Your task to perform on an android device: Show the shopping cart on bestbuy.com. Search for "razer deathadder" on bestbuy.com, select the first entry, and add it to the cart. Image 0: 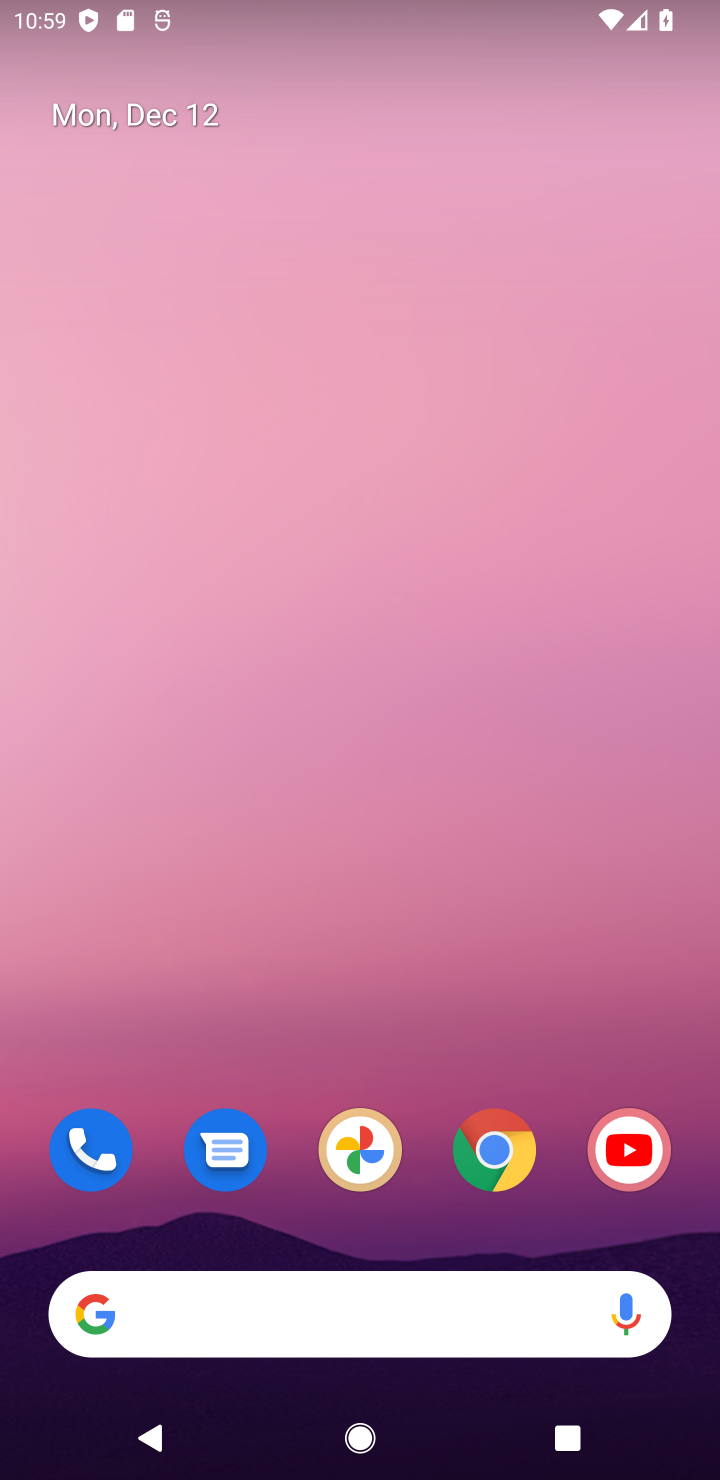
Step 0: click (489, 1150)
Your task to perform on an android device: Show the shopping cart on bestbuy.com. Search for "razer deathadder" on bestbuy.com, select the first entry, and add it to the cart. Image 1: 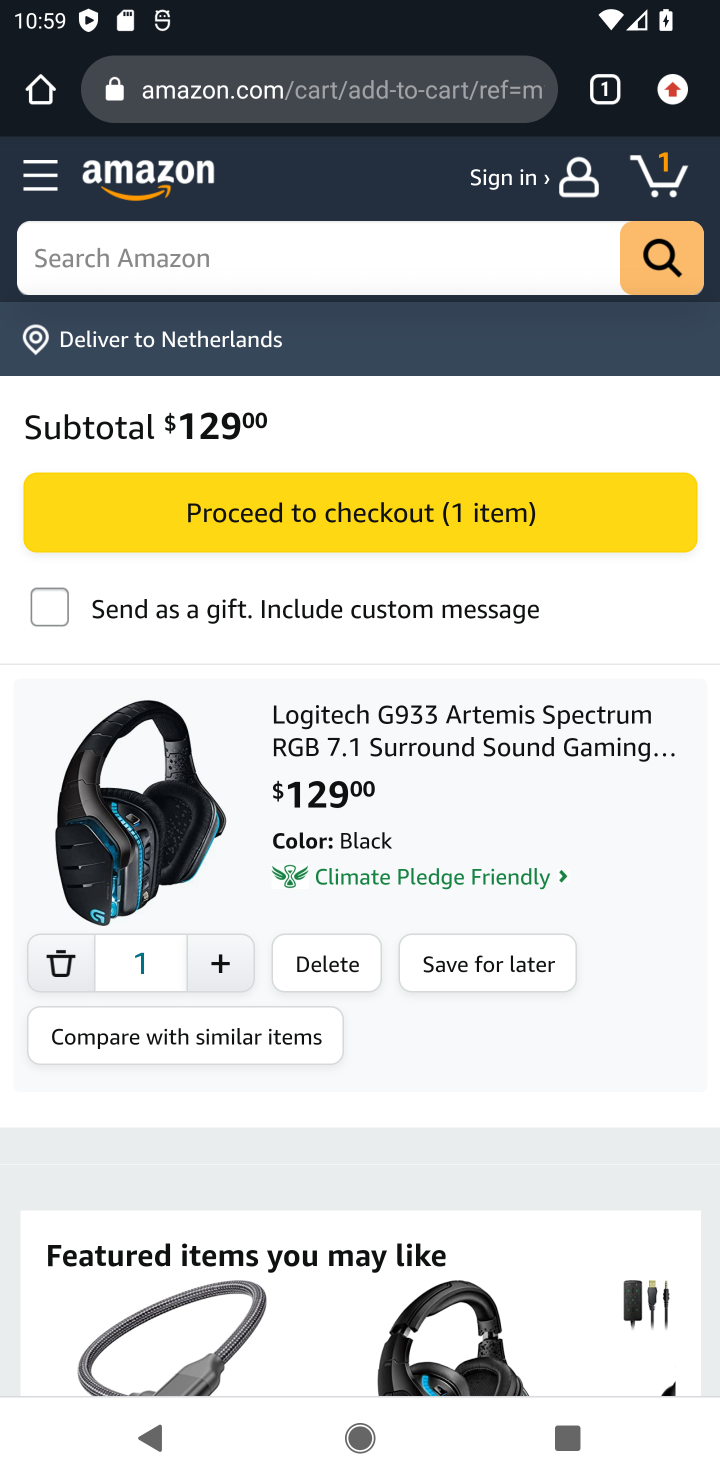
Step 1: click (271, 104)
Your task to perform on an android device: Show the shopping cart on bestbuy.com. Search for "razer deathadder" on bestbuy.com, select the first entry, and add it to the cart. Image 2: 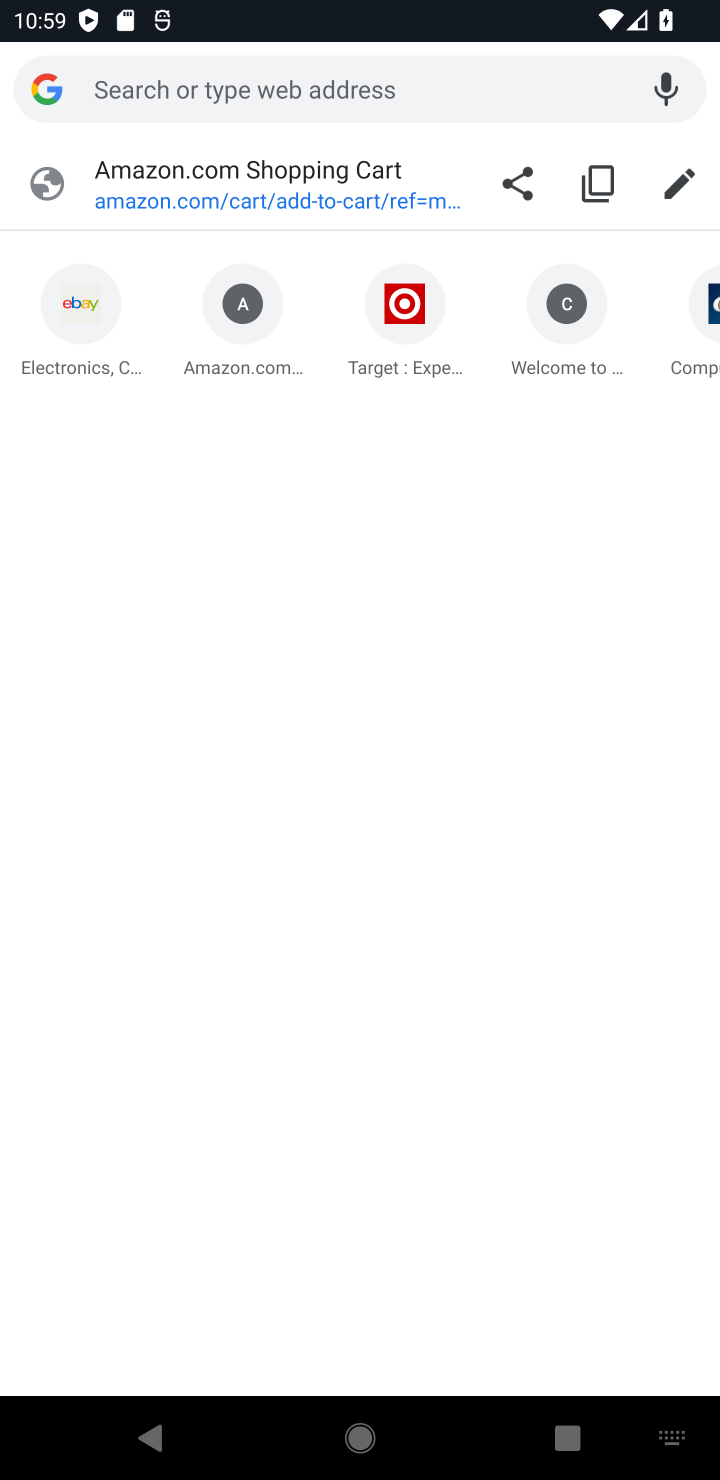
Step 2: type "bestbuy.com"
Your task to perform on an android device: Show the shopping cart on bestbuy.com. Search for "razer deathadder" on bestbuy.com, select the first entry, and add it to the cart. Image 3: 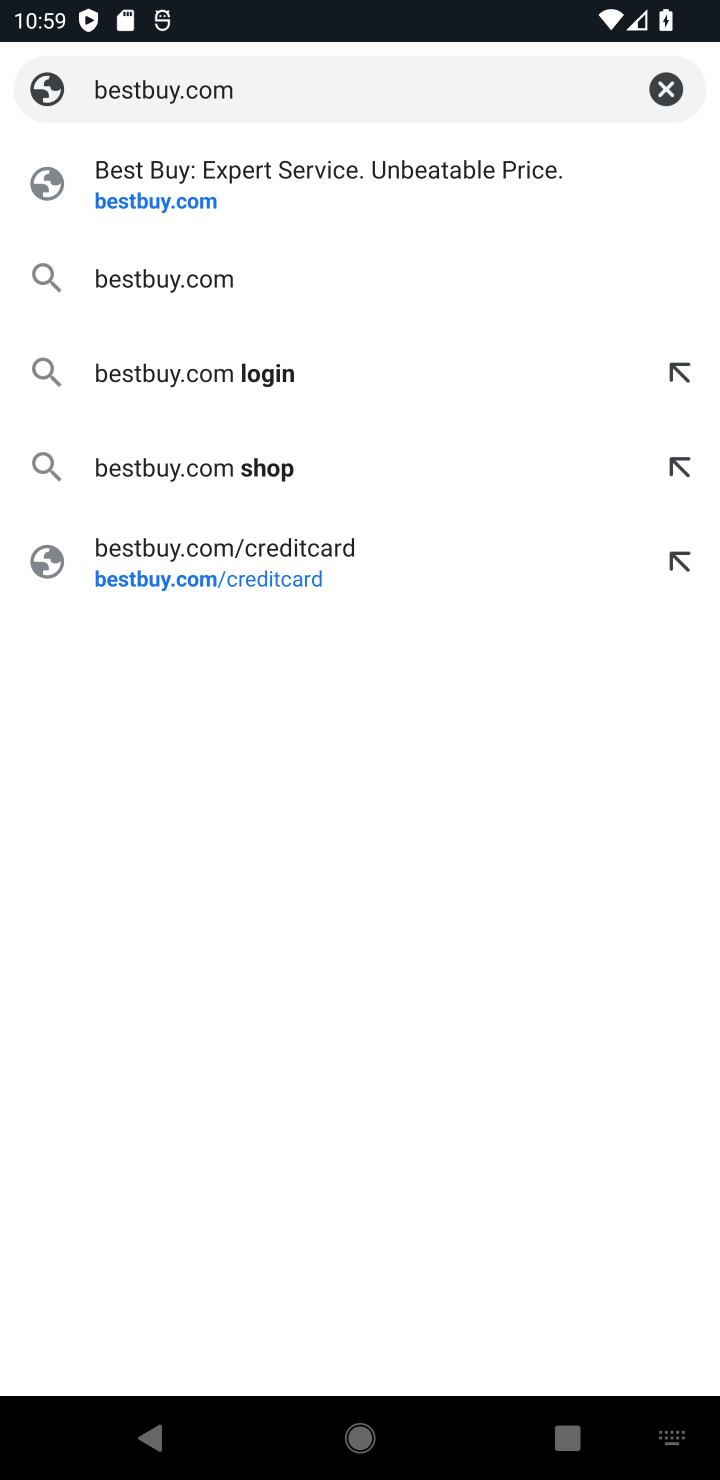
Step 3: click (173, 215)
Your task to perform on an android device: Show the shopping cart on bestbuy.com. Search for "razer deathadder" on bestbuy.com, select the first entry, and add it to the cart. Image 4: 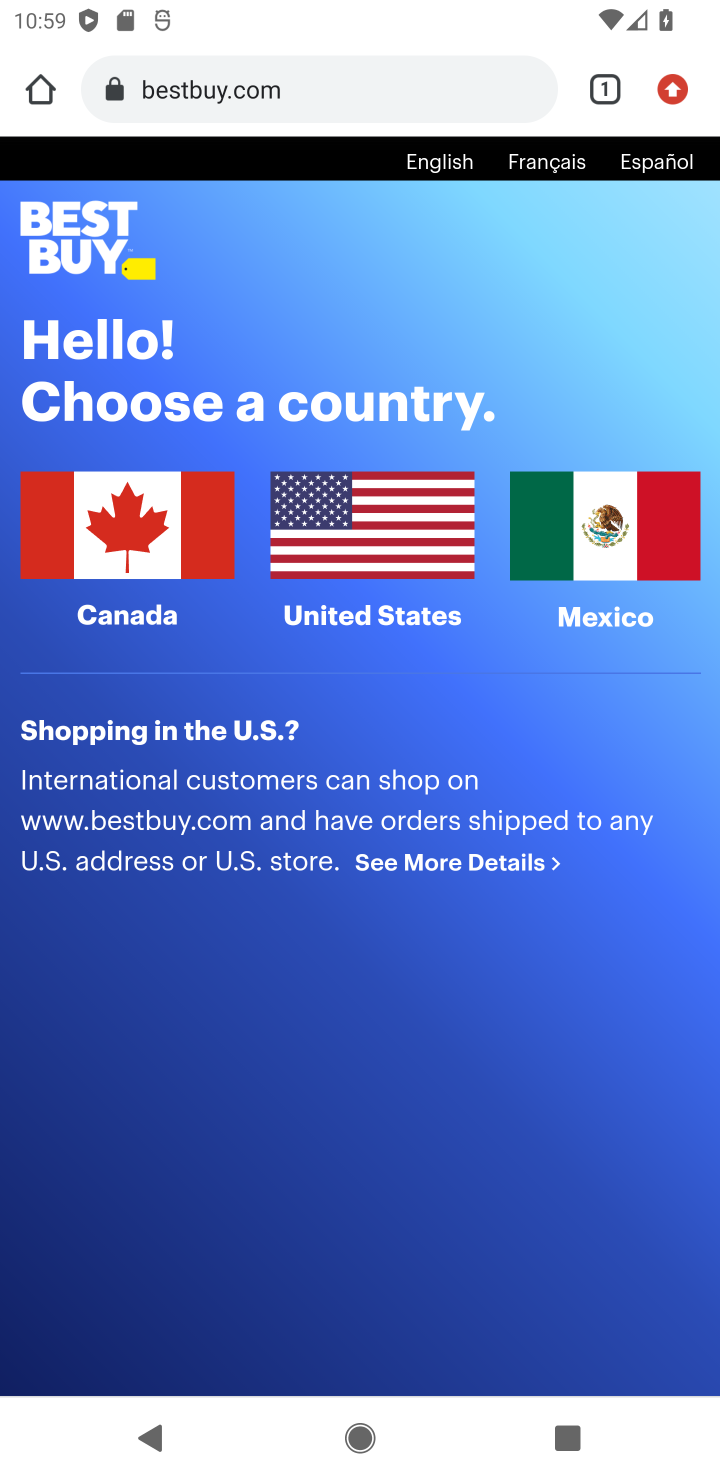
Step 4: click (382, 554)
Your task to perform on an android device: Show the shopping cart on bestbuy.com. Search for "razer deathadder" on bestbuy.com, select the first entry, and add it to the cart. Image 5: 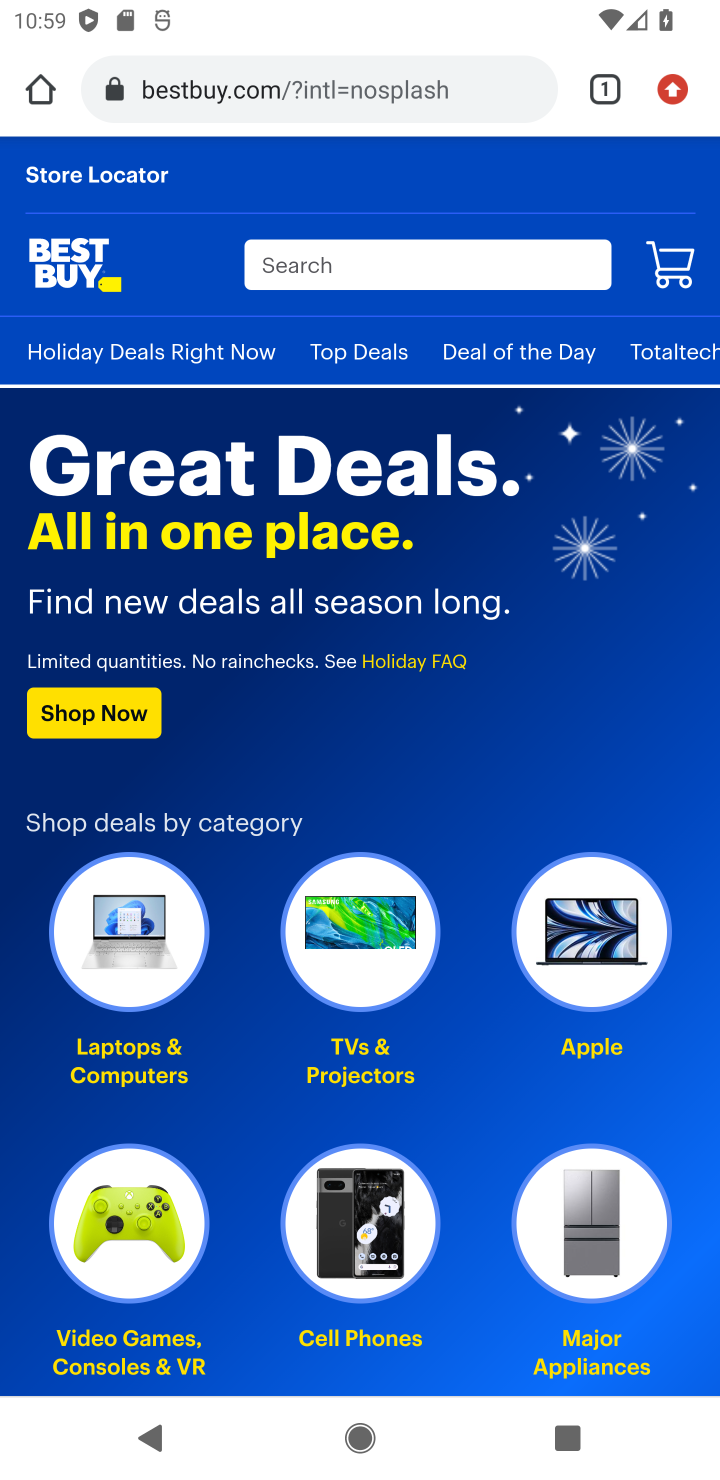
Step 5: click (667, 275)
Your task to perform on an android device: Show the shopping cart on bestbuy.com. Search for "razer deathadder" on bestbuy.com, select the first entry, and add it to the cart. Image 6: 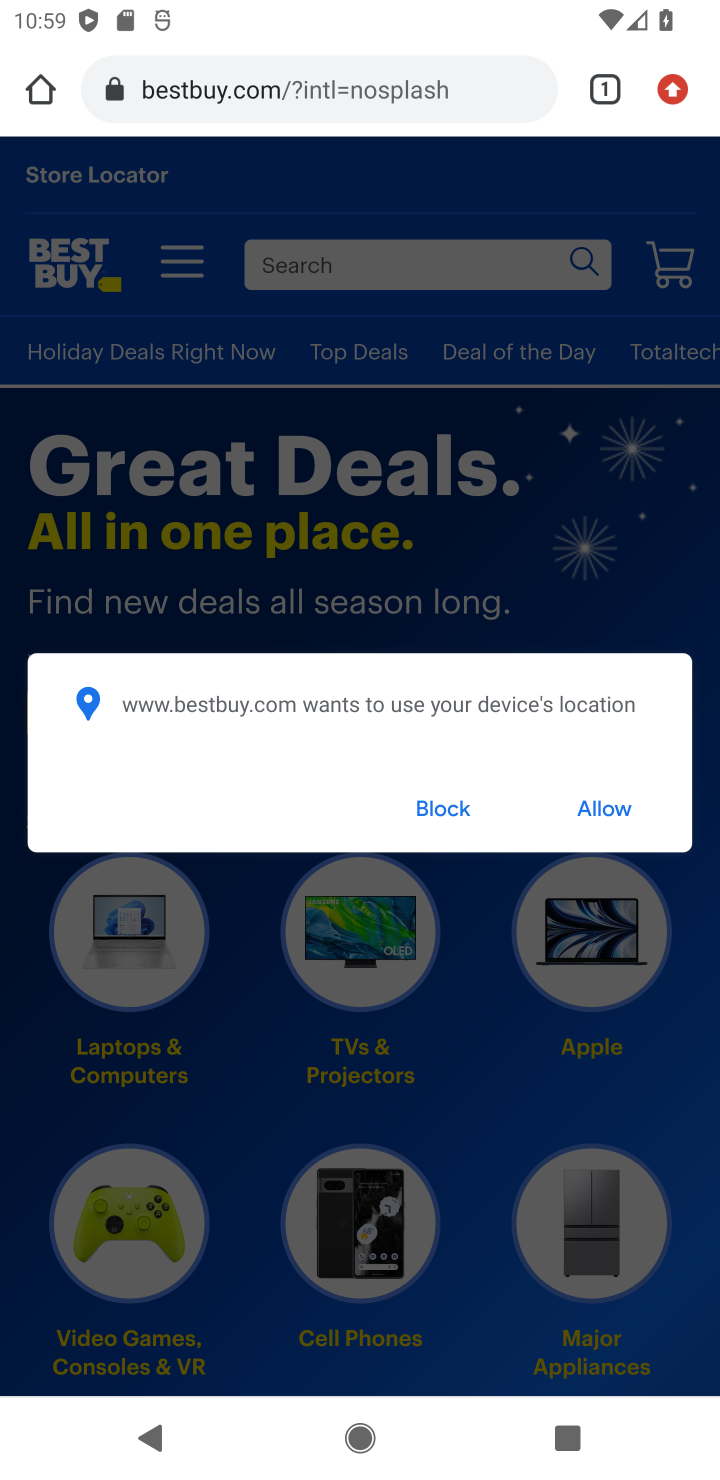
Step 6: click (418, 808)
Your task to perform on an android device: Show the shopping cart on bestbuy.com. Search for "razer deathadder" on bestbuy.com, select the first entry, and add it to the cart. Image 7: 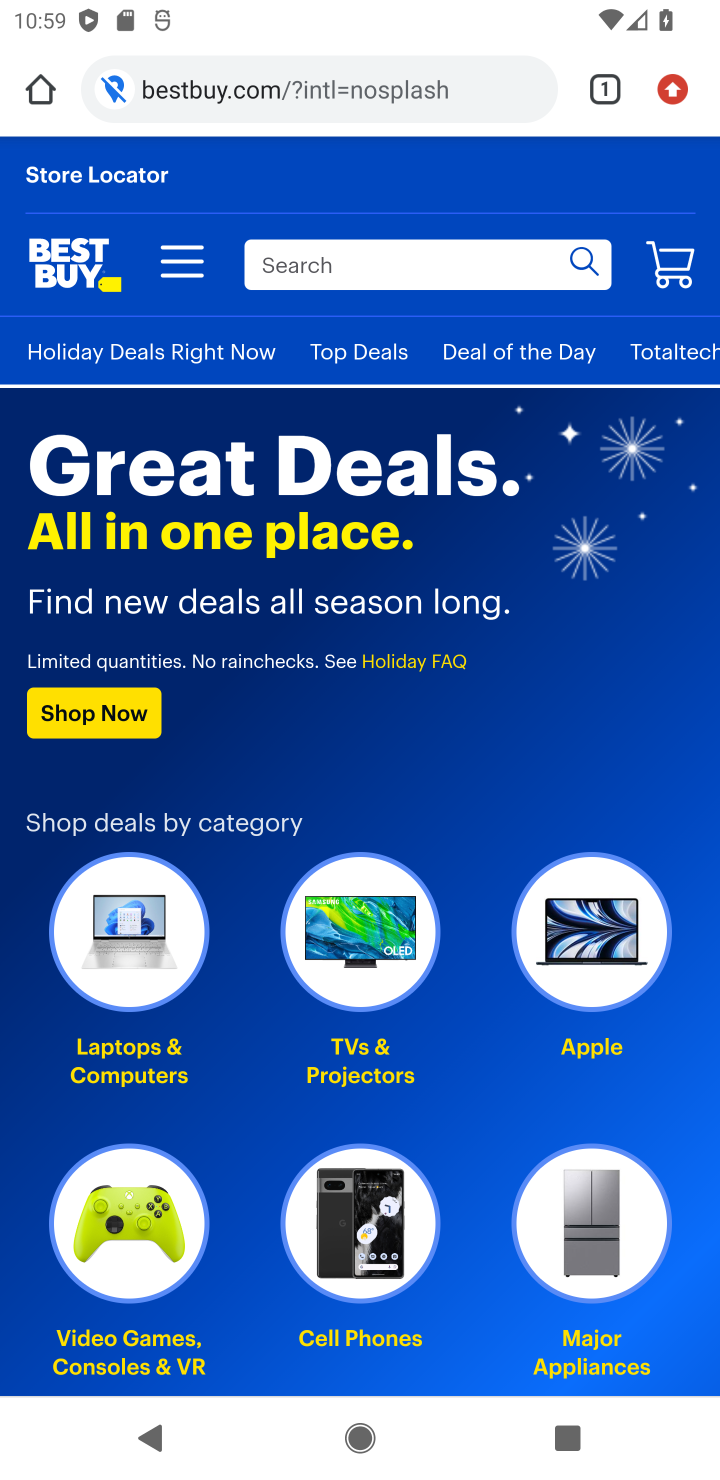
Step 7: click (677, 279)
Your task to perform on an android device: Show the shopping cart on bestbuy.com. Search for "razer deathadder" on bestbuy.com, select the first entry, and add it to the cart. Image 8: 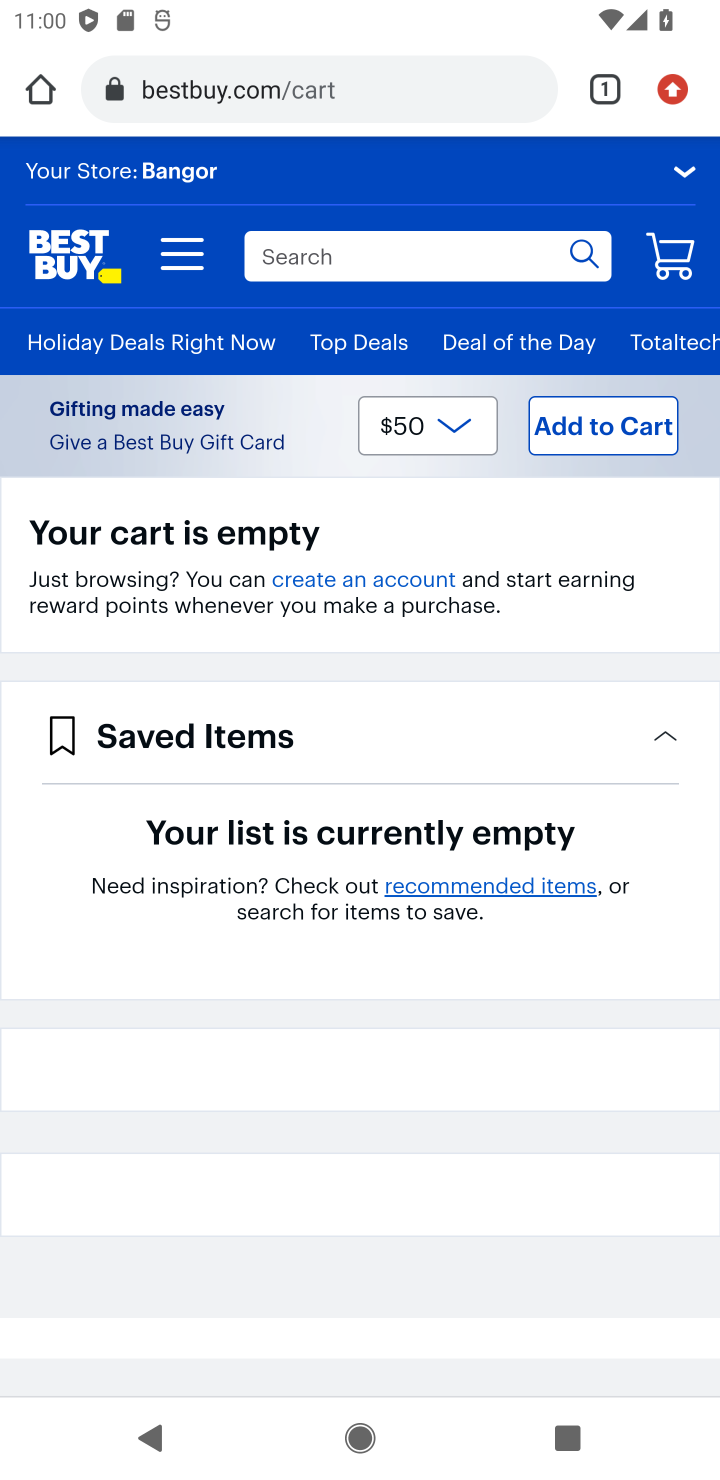
Step 8: click (319, 259)
Your task to perform on an android device: Show the shopping cart on bestbuy.com. Search for "razer deathadder" on bestbuy.com, select the first entry, and add it to the cart. Image 9: 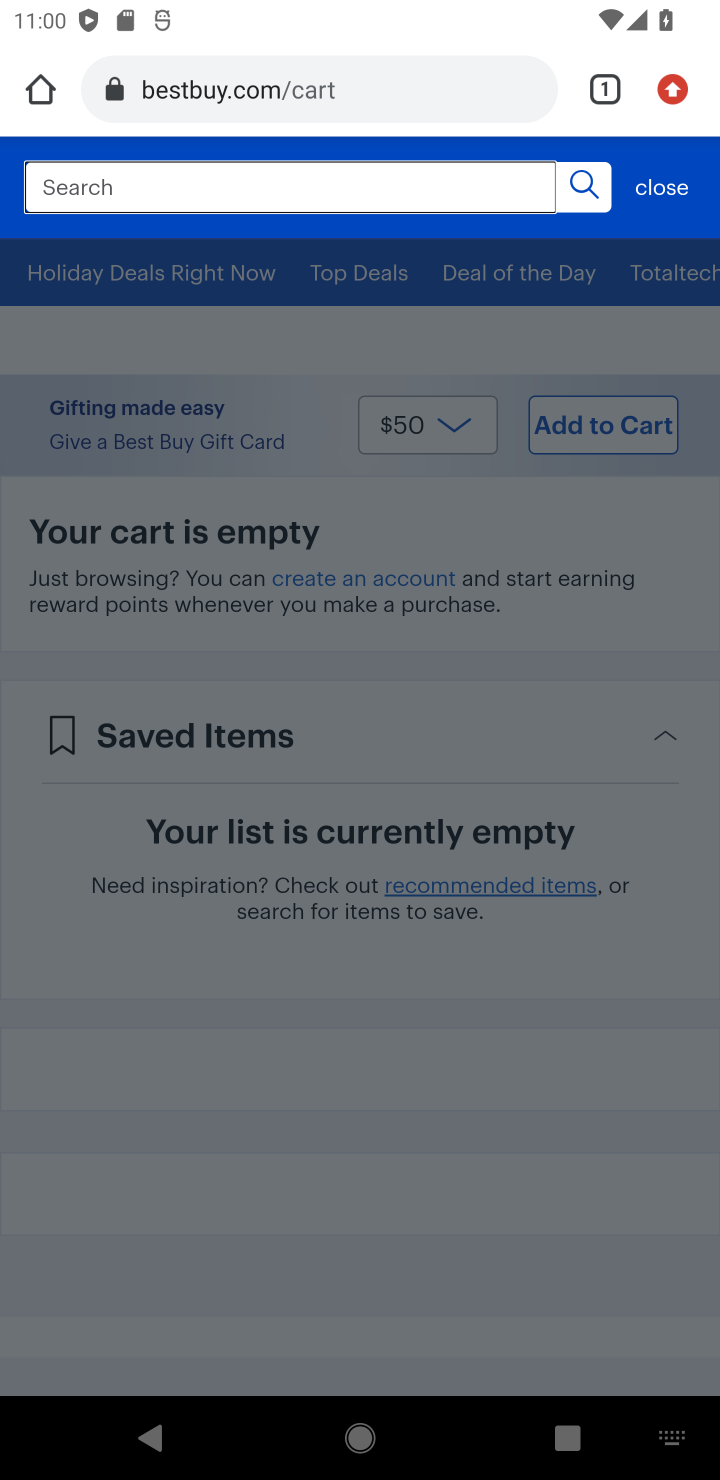
Step 9: type "razer deathadder"
Your task to perform on an android device: Show the shopping cart on bestbuy.com. Search for "razer deathadder" on bestbuy.com, select the first entry, and add it to the cart. Image 10: 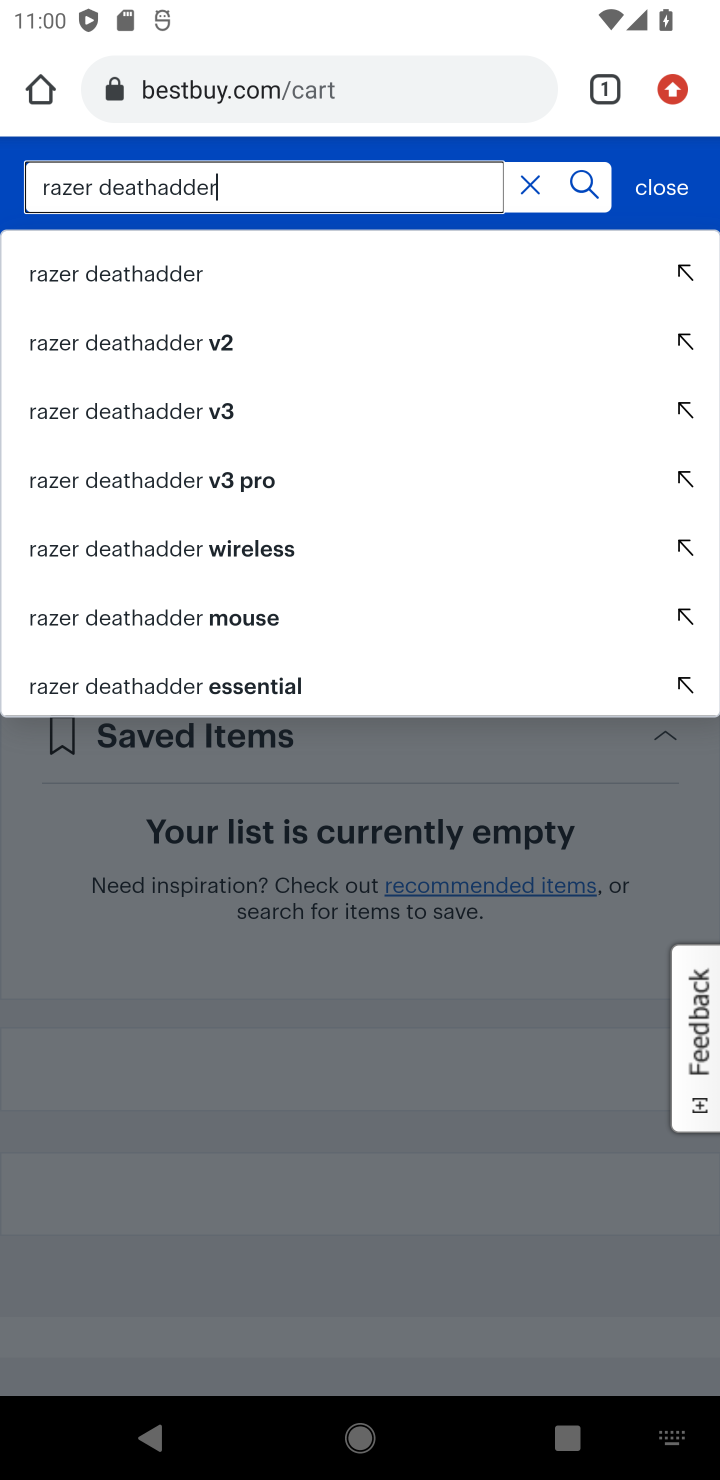
Step 10: click (124, 286)
Your task to perform on an android device: Show the shopping cart on bestbuy.com. Search for "razer deathadder" on bestbuy.com, select the first entry, and add it to the cart. Image 11: 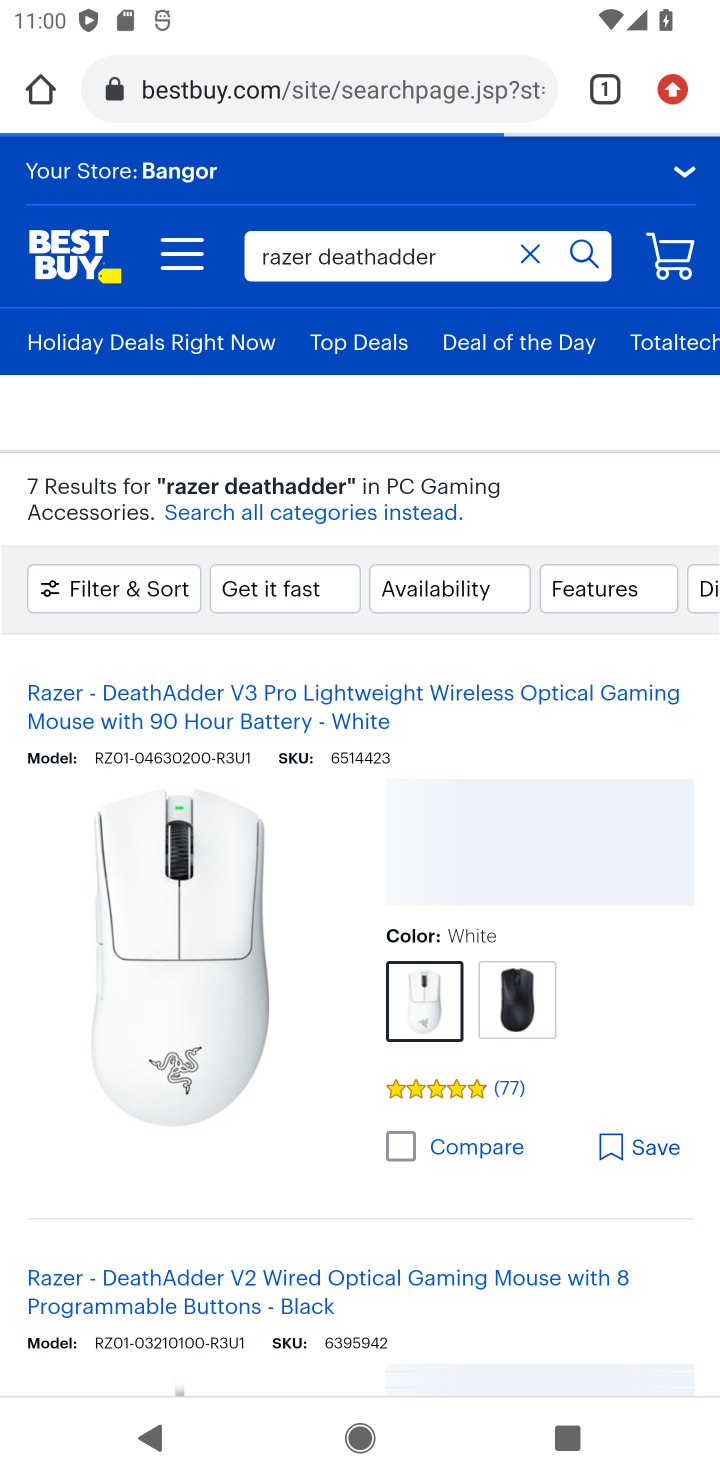
Step 11: drag from (222, 1017) to (243, 637)
Your task to perform on an android device: Show the shopping cart on bestbuy.com. Search for "razer deathadder" on bestbuy.com, select the first entry, and add it to the cart. Image 12: 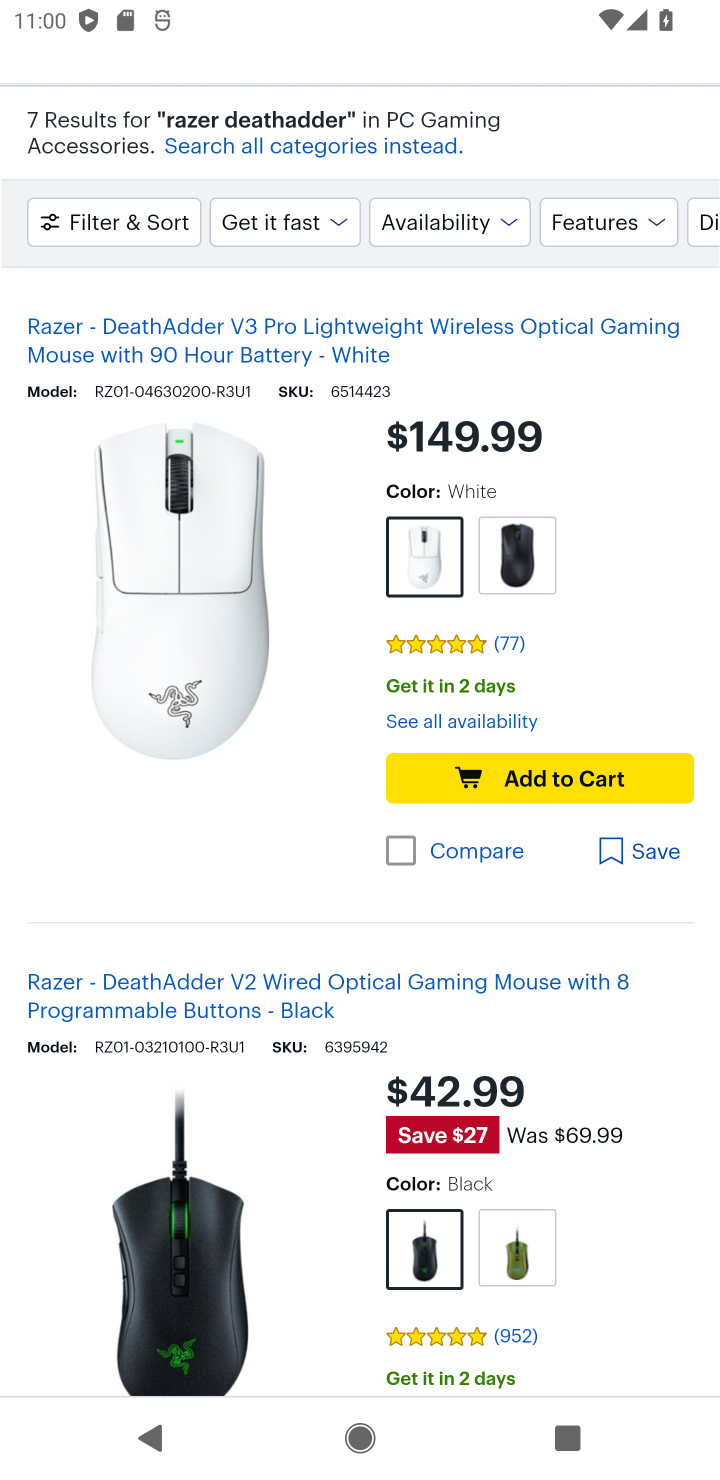
Step 12: click (149, 614)
Your task to perform on an android device: Show the shopping cart on bestbuy.com. Search for "razer deathadder" on bestbuy.com, select the first entry, and add it to the cart. Image 13: 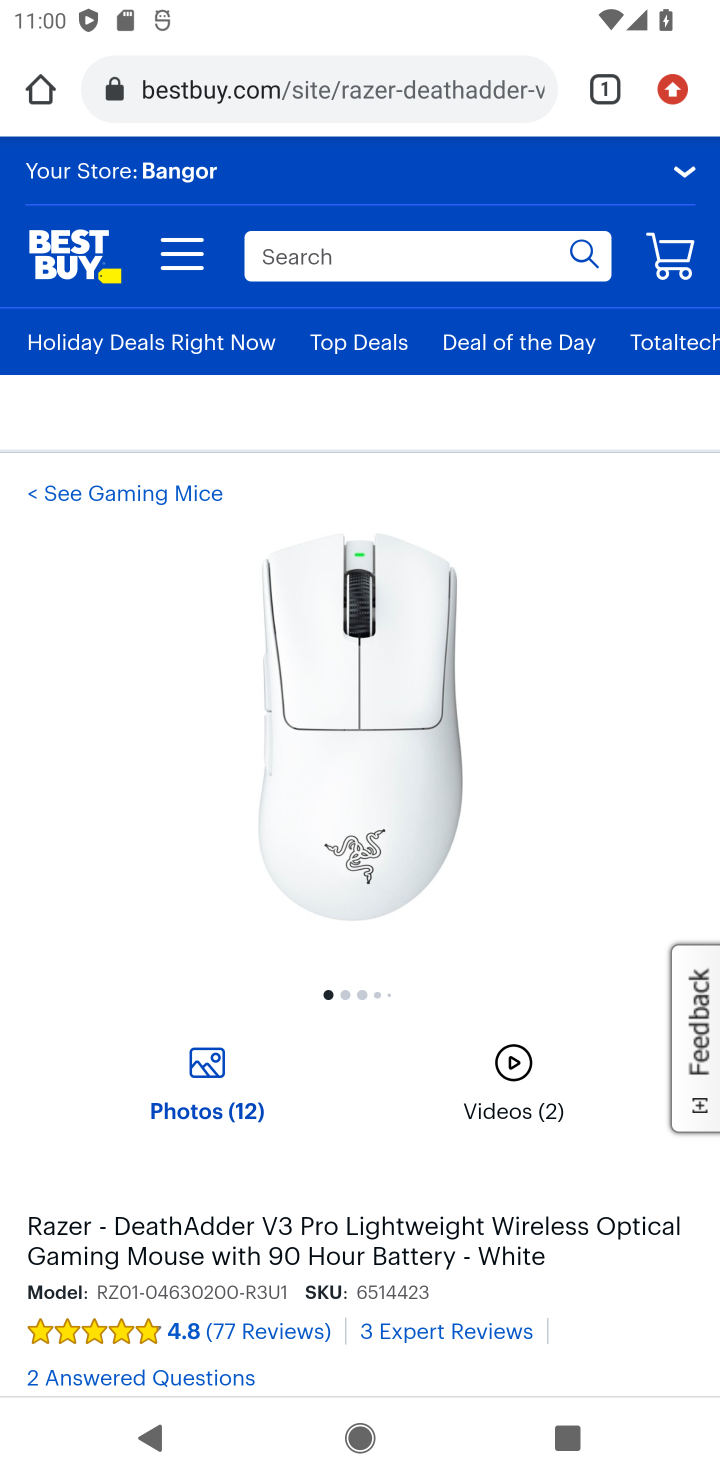
Step 13: drag from (620, 1137) to (582, 538)
Your task to perform on an android device: Show the shopping cart on bestbuy.com. Search for "razer deathadder" on bestbuy.com, select the first entry, and add it to the cart. Image 14: 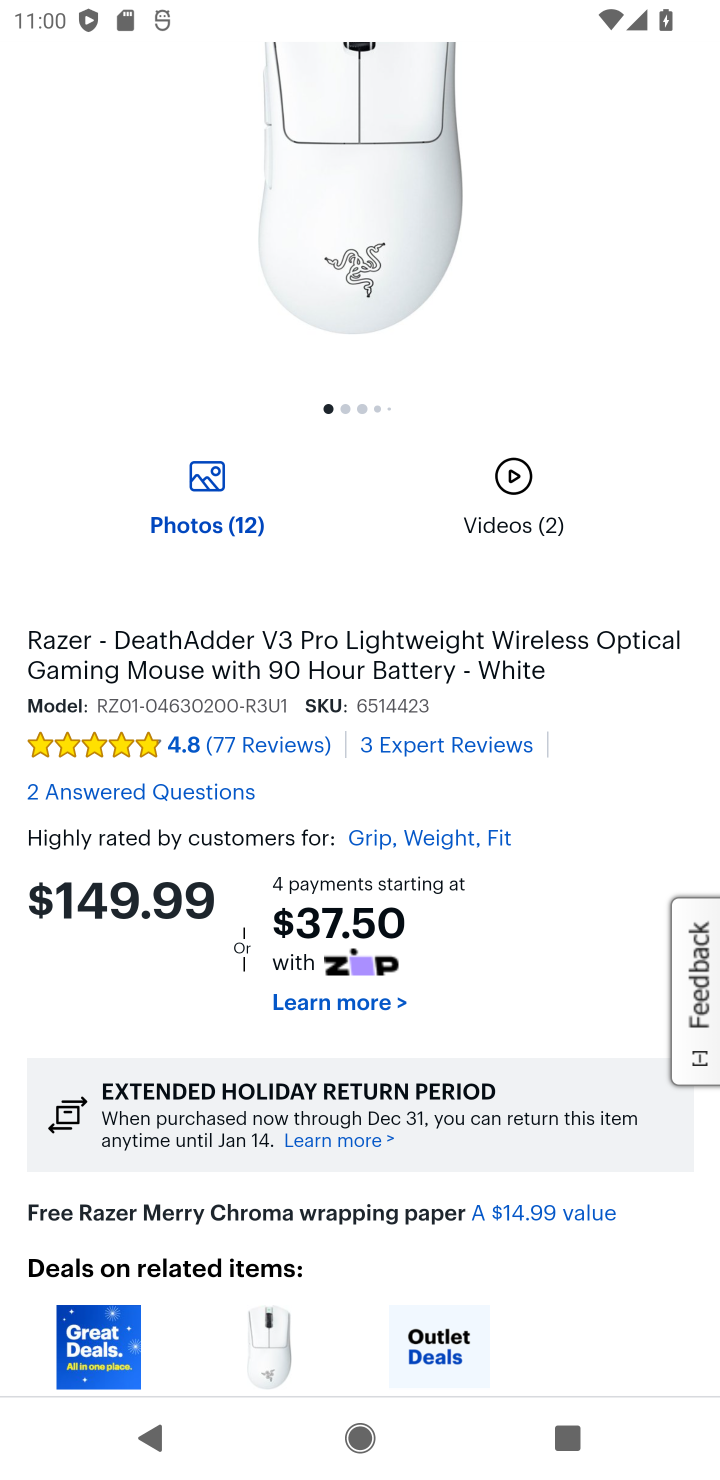
Step 14: drag from (561, 1026) to (510, 593)
Your task to perform on an android device: Show the shopping cart on bestbuy.com. Search for "razer deathadder" on bestbuy.com, select the first entry, and add it to the cart. Image 15: 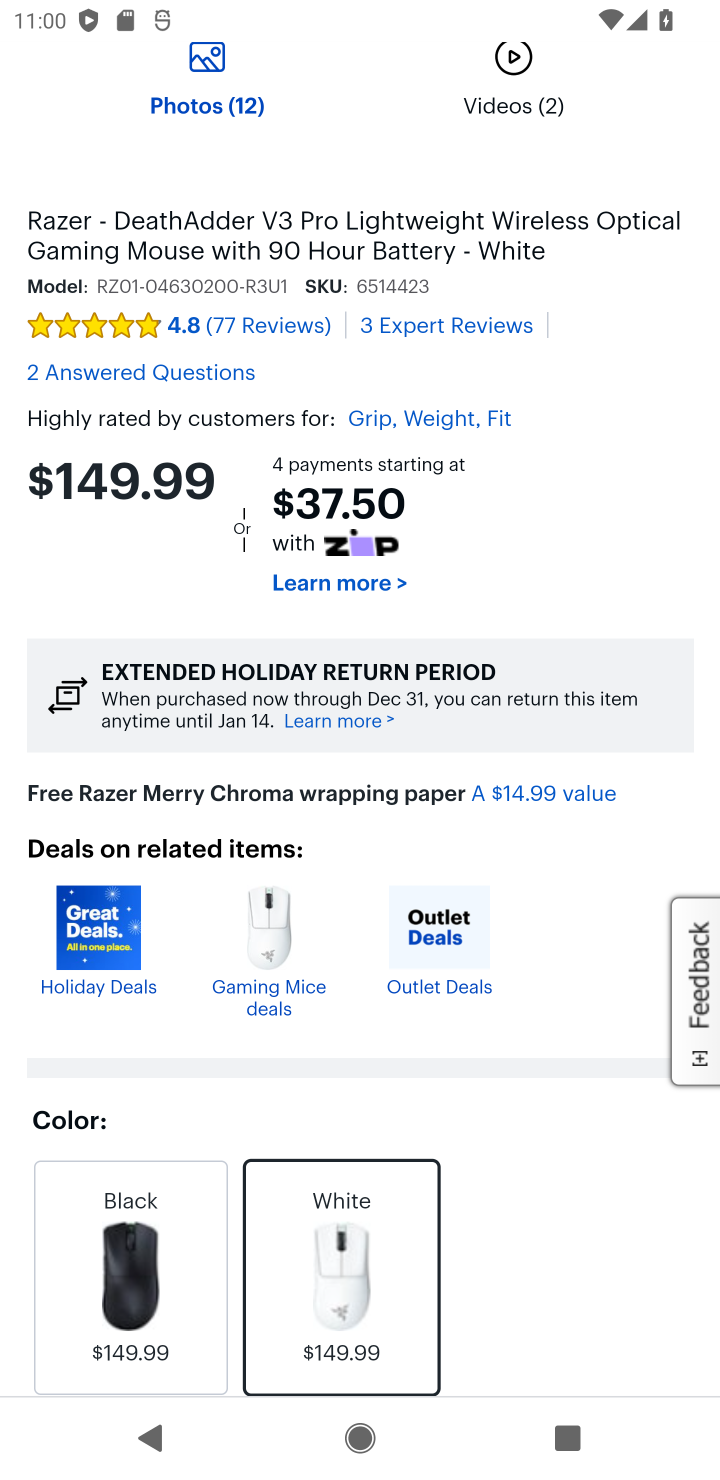
Step 15: drag from (548, 1132) to (461, 539)
Your task to perform on an android device: Show the shopping cart on bestbuy.com. Search for "razer deathadder" on bestbuy.com, select the first entry, and add it to the cart. Image 16: 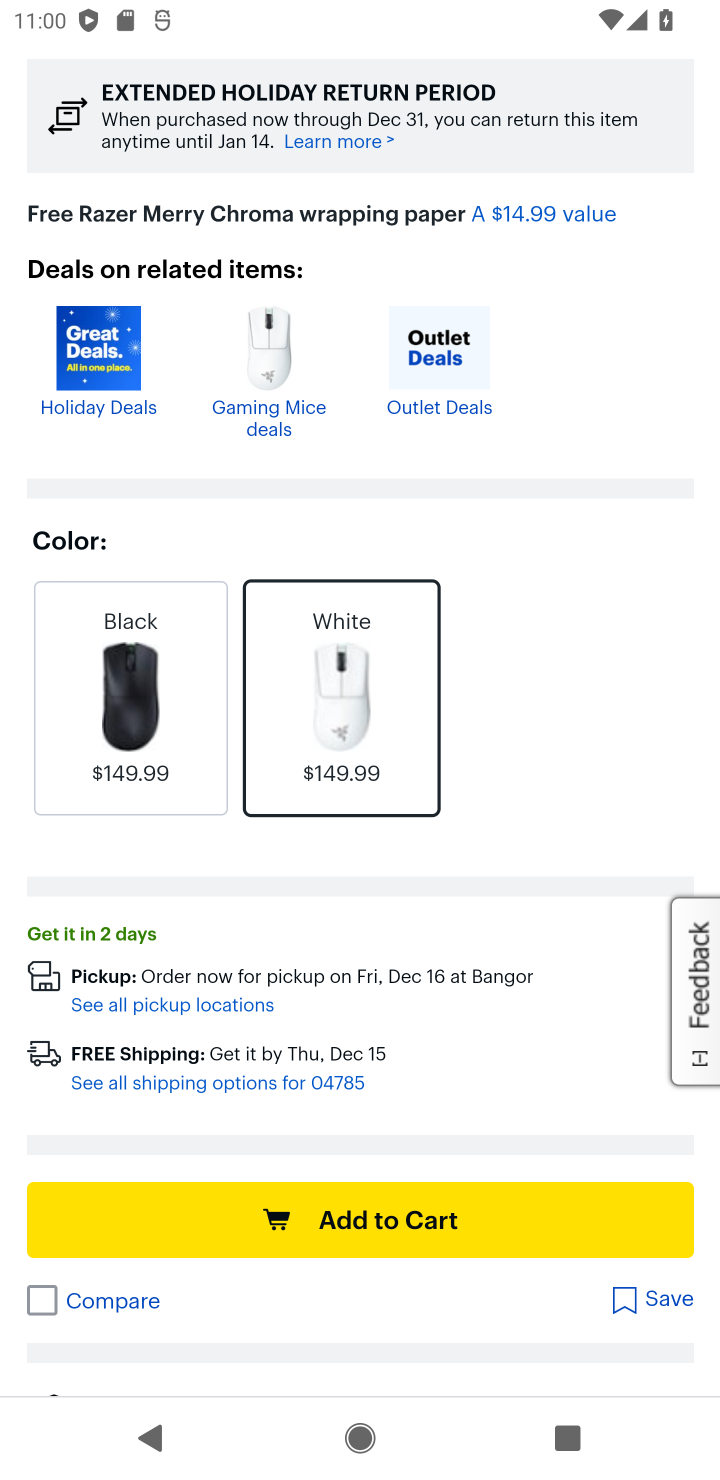
Step 16: click (339, 1222)
Your task to perform on an android device: Show the shopping cart on bestbuy.com. Search for "razer deathadder" on bestbuy.com, select the first entry, and add it to the cart. Image 17: 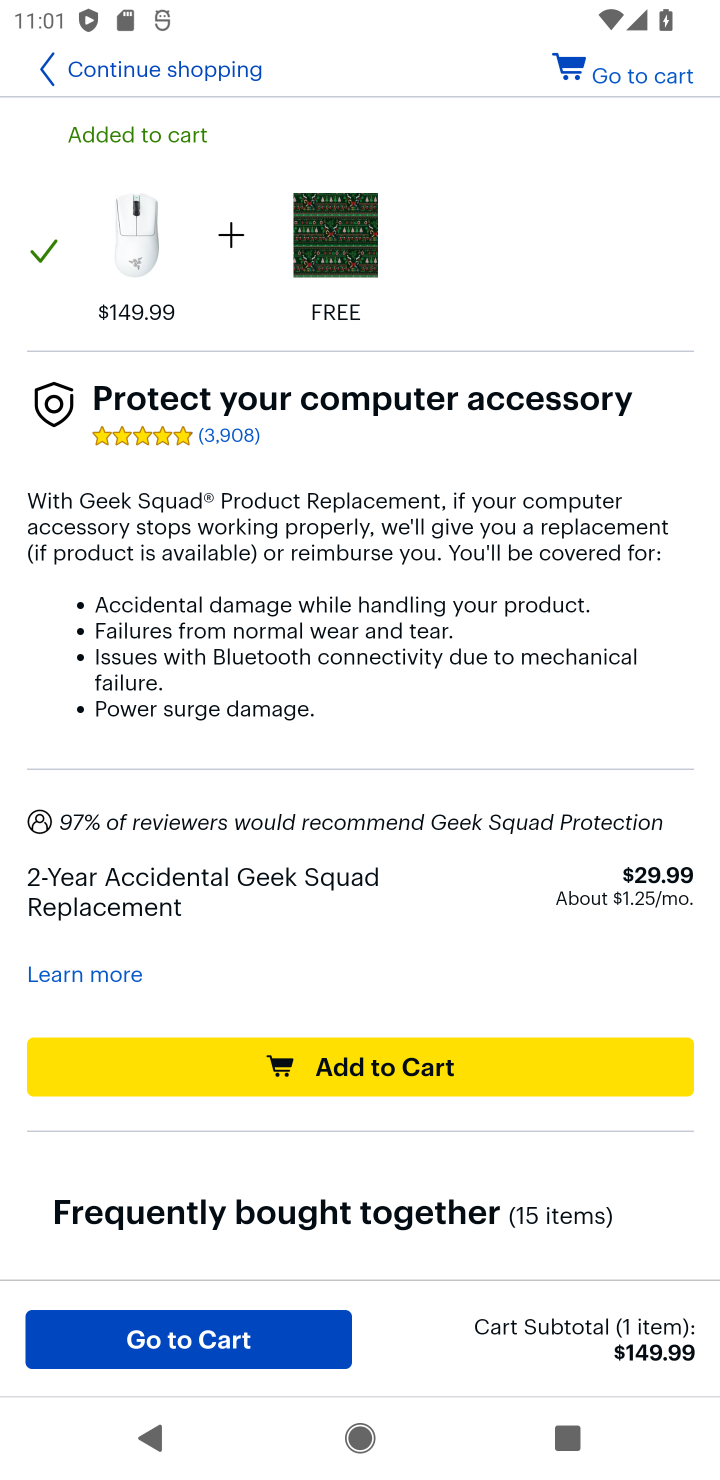
Step 17: task complete